Your task to perform on an android device: See recent photos Image 0: 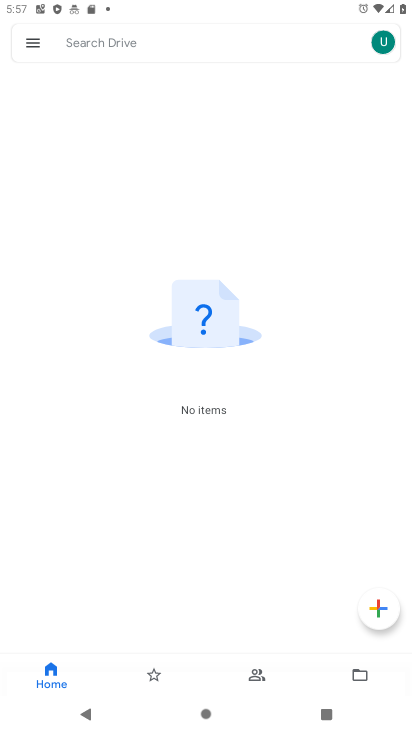
Step 0: press home button
Your task to perform on an android device: See recent photos Image 1: 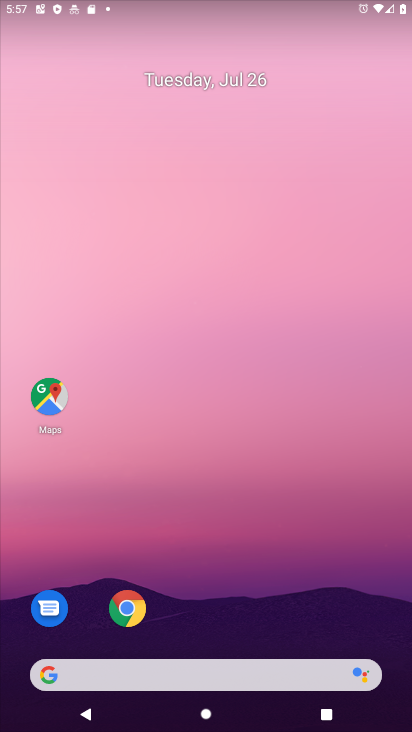
Step 1: drag from (237, 622) to (303, 121)
Your task to perform on an android device: See recent photos Image 2: 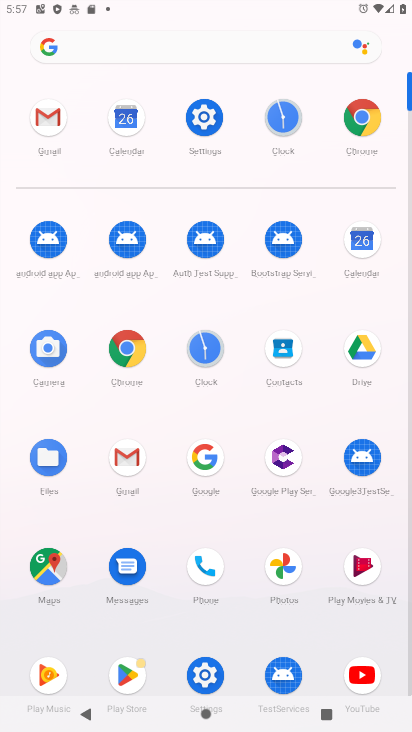
Step 2: click (284, 568)
Your task to perform on an android device: See recent photos Image 3: 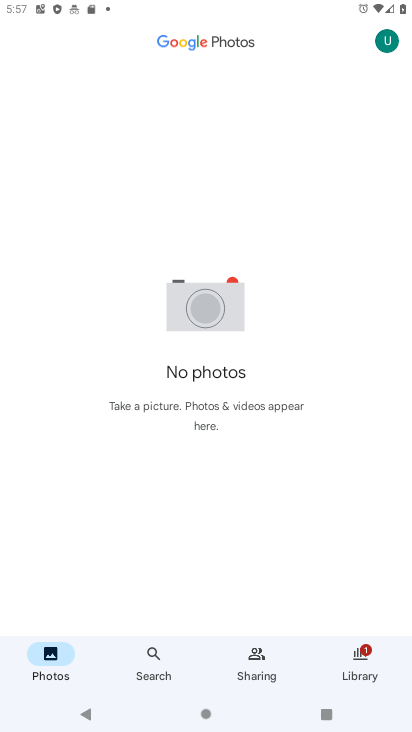
Step 3: task complete